Your task to perform on an android device: toggle javascript in the chrome app Image 0: 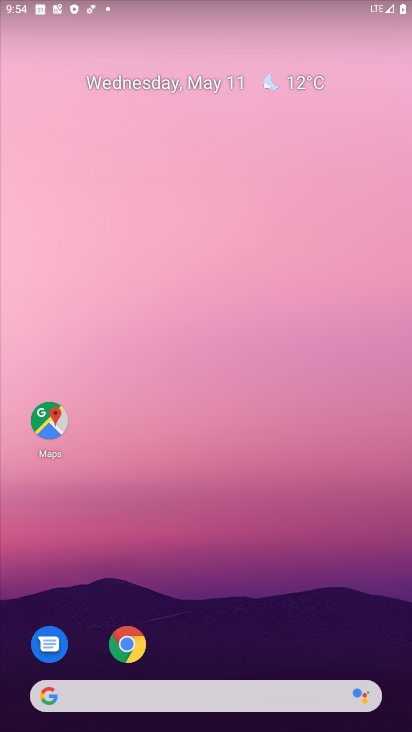
Step 0: click (123, 640)
Your task to perform on an android device: toggle javascript in the chrome app Image 1: 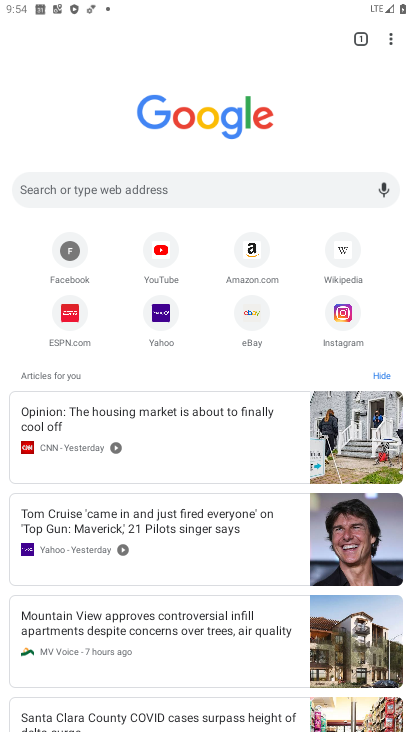
Step 1: click (385, 52)
Your task to perform on an android device: toggle javascript in the chrome app Image 2: 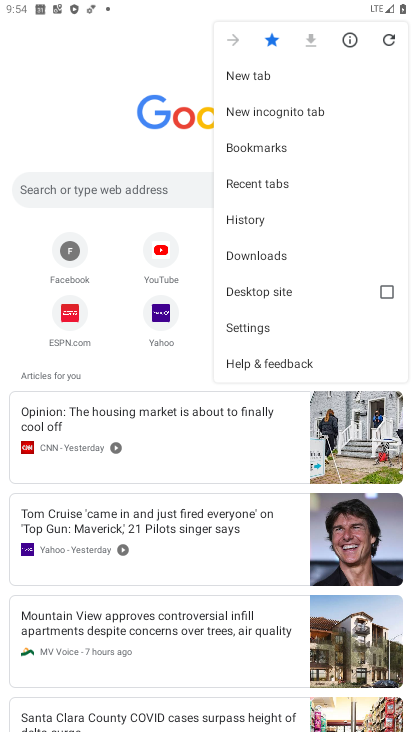
Step 2: click (291, 324)
Your task to perform on an android device: toggle javascript in the chrome app Image 3: 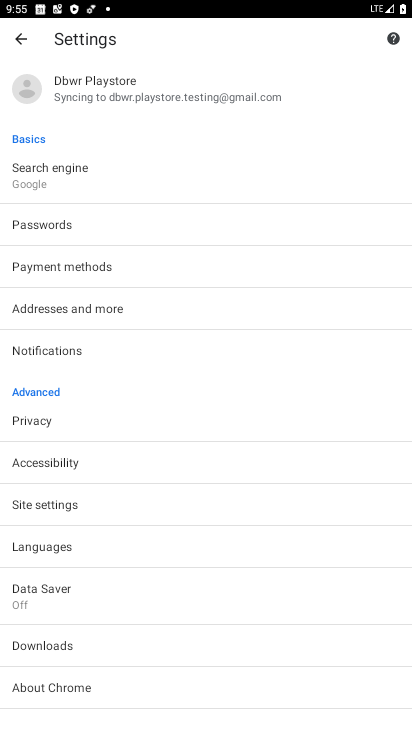
Step 3: click (134, 512)
Your task to perform on an android device: toggle javascript in the chrome app Image 4: 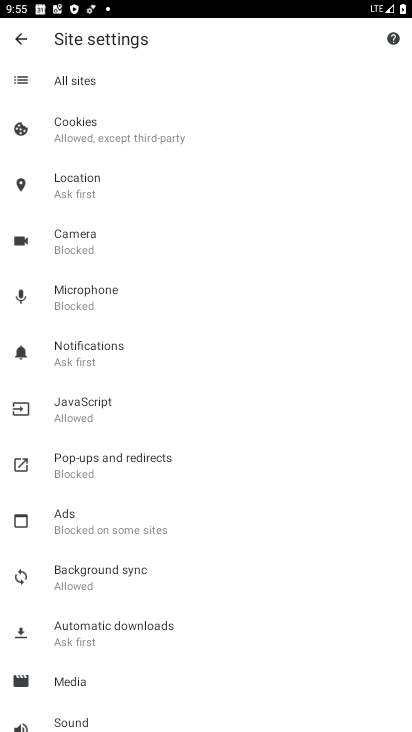
Step 4: click (118, 404)
Your task to perform on an android device: toggle javascript in the chrome app Image 5: 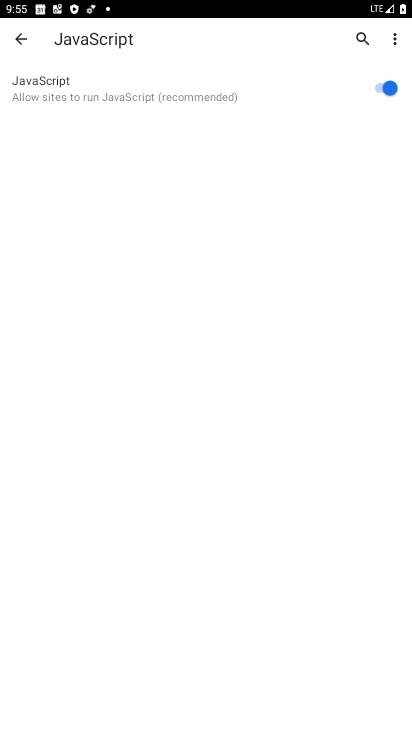
Step 5: click (356, 92)
Your task to perform on an android device: toggle javascript in the chrome app Image 6: 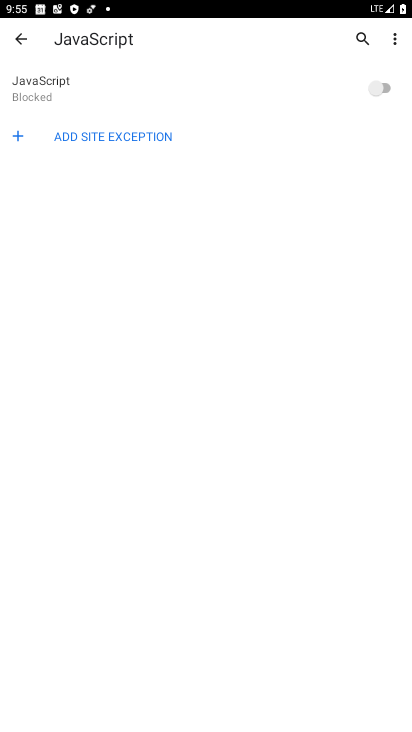
Step 6: task complete